Your task to perform on an android device: Open eBay Image 0: 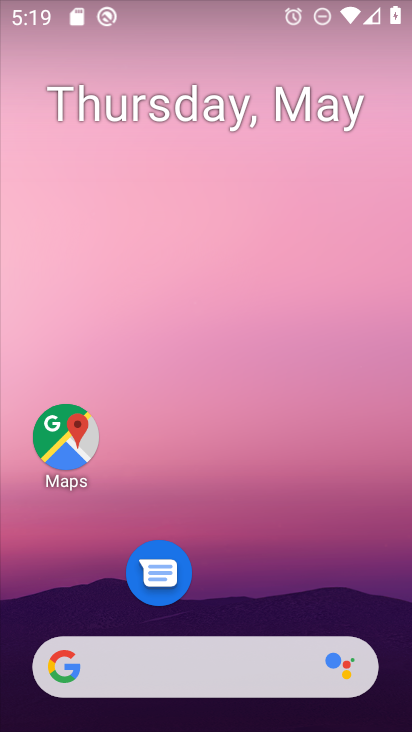
Step 0: drag from (230, 362) to (181, 84)
Your task to perform on an android device: Open eBay Image 1: 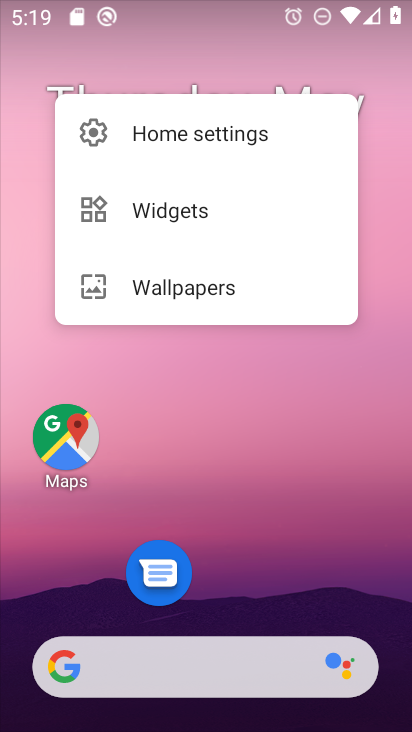
Step 1: click (253, 523)
Your task to perform on an android device: Open eBay Image 2: 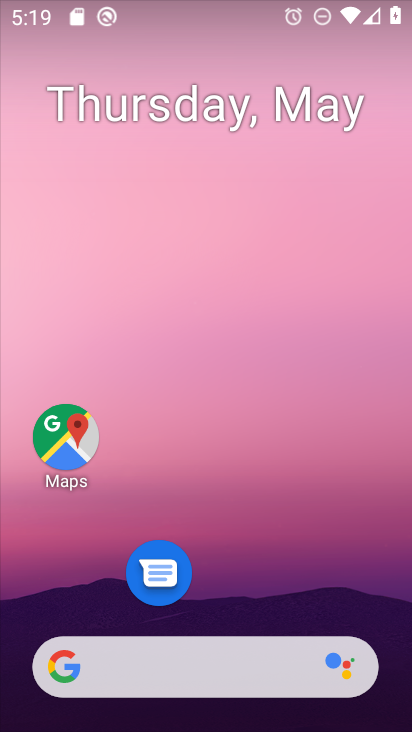
Step 2: drag from (222, 582) to (191, 77)
Your task to perform on an android device: Open eBay Image 3: 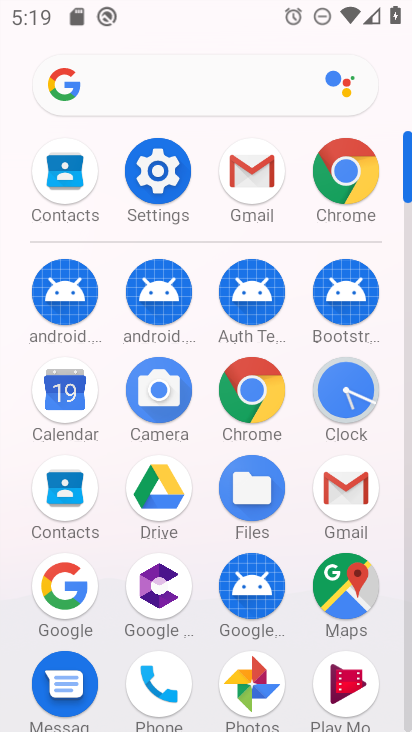
Step 3: click (339, 206)
Your task to perform on an android device: Open eBay Image 4: 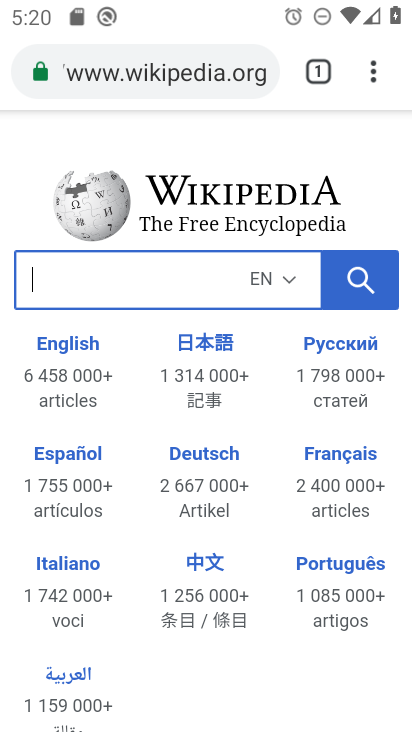
Step 4: press back button
Your task to perform on an android device: Open eBay Image 5: 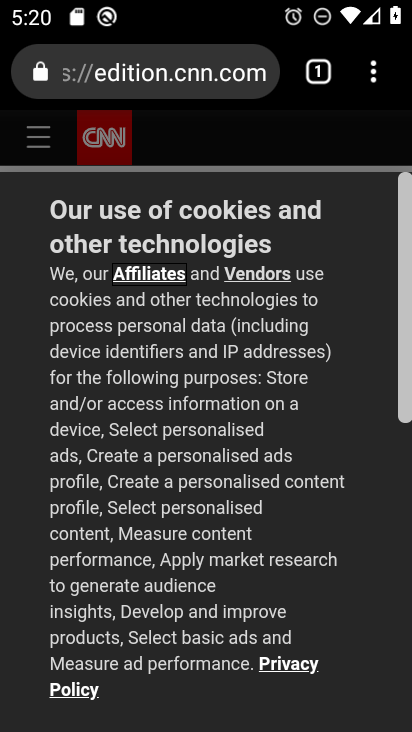
Step 5: press back button
Your task to perform on an android device: Open eBay Image 6: 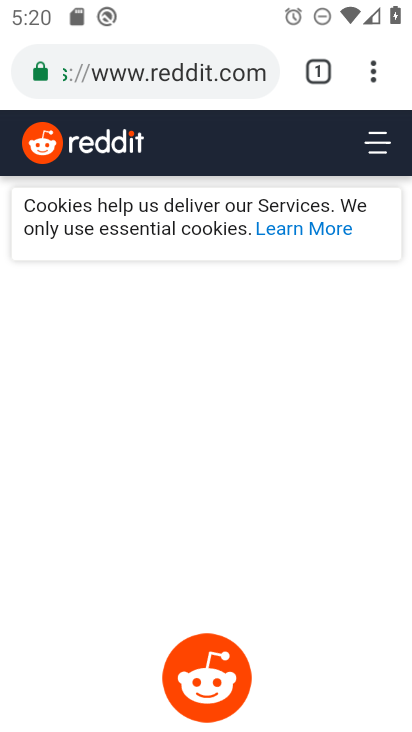
Step 6: press back button
Your task to perform on an android device: Open eBay Image 7: 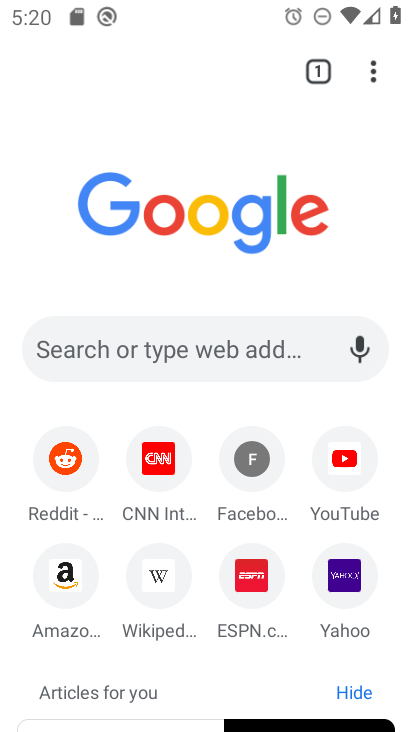
Step 7: click (187, 327)
Your task to perform on an android device: Open eBay Image 8: 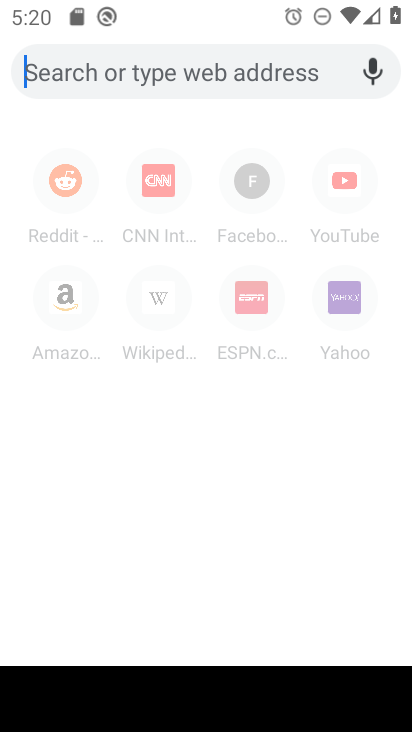
Step 8: type "www.ebay.com"
Your task to perform on an android device: Open eBay Image 9: 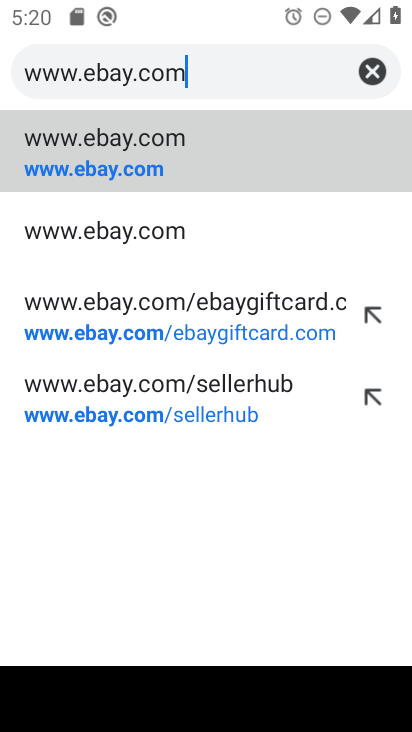
Step 9: click (138, 173)
Your task to perform on an android device: Open eBay Image 10: 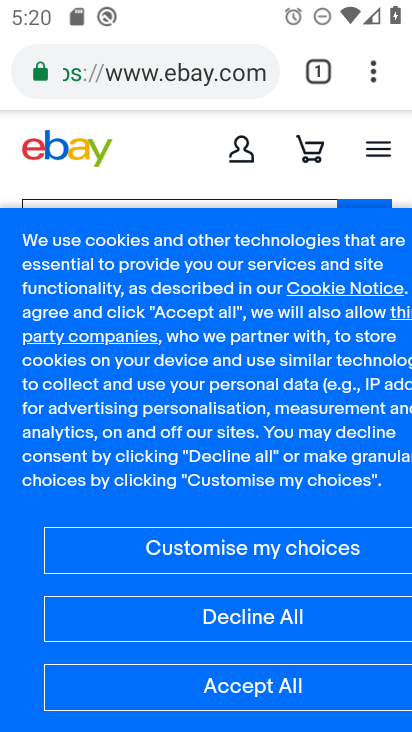
Step 10: task complete